Your task to perform on an android device: check out phone information Image 0: 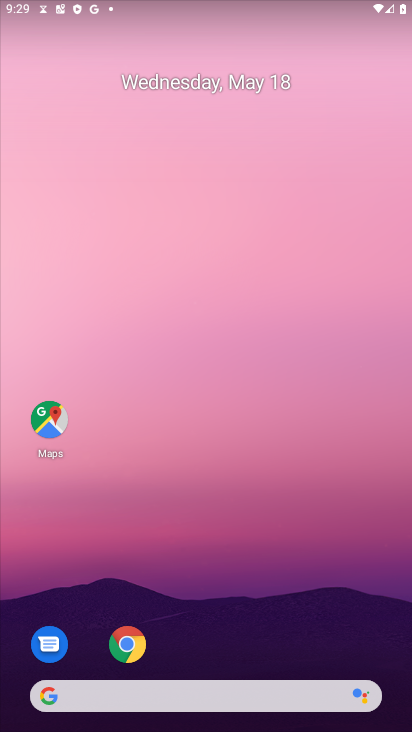
Step 0: drag from (259, 643) to (238, 236)
Your task to perform on an android device: check out phone information Image 1: 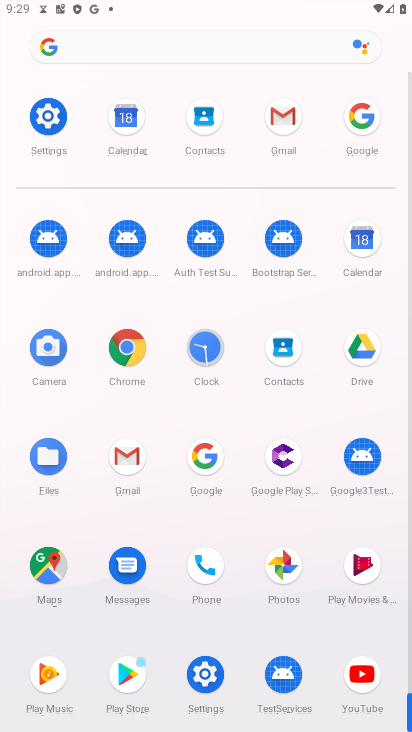
Step 1: click (47, 118)
Your task to perform on an android device: check out phone information Image 2: 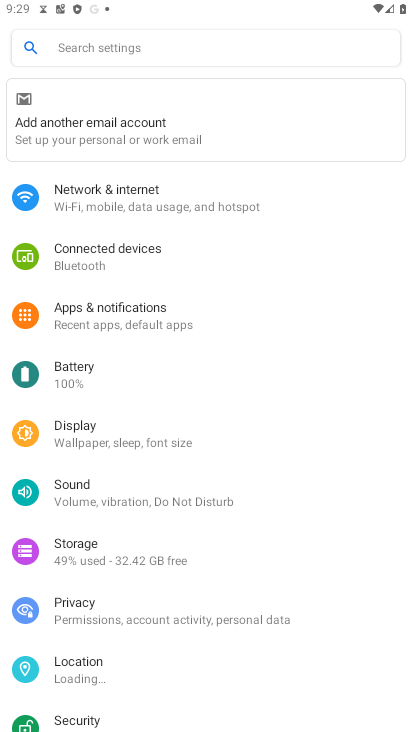
Step 2: drag from (121, 423) to (165, 344)
Your task to perform on an android device: check out phone information Image 3: 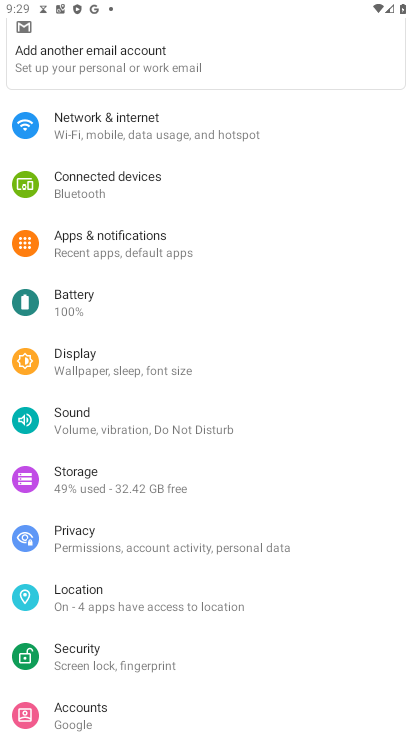
Step 3: drag from (103, 495) to (160, 421)
Your task to perform on an android device: check out phone information Image 4: 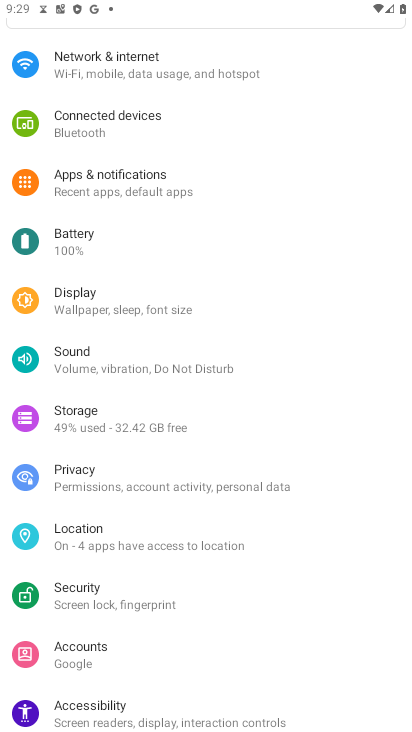
Step 4: drag from (125, 511) to (182, 412)
Your task to perform on an android device: check out phone information Image 5: 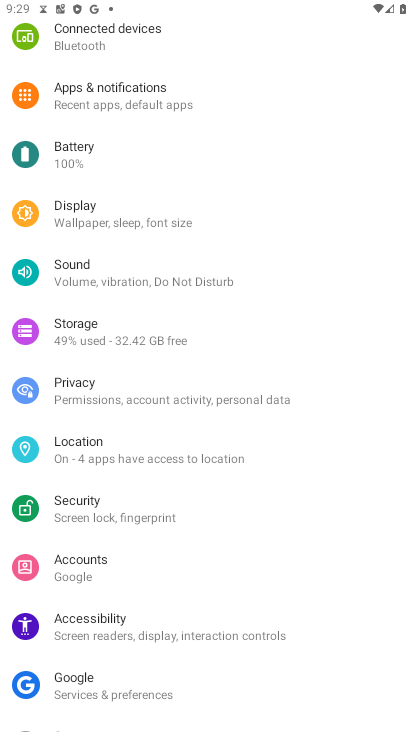
Step 5: drag from (137, 586) to (169, 487)
Your task to perform on an android device: check out phone information Image 6: 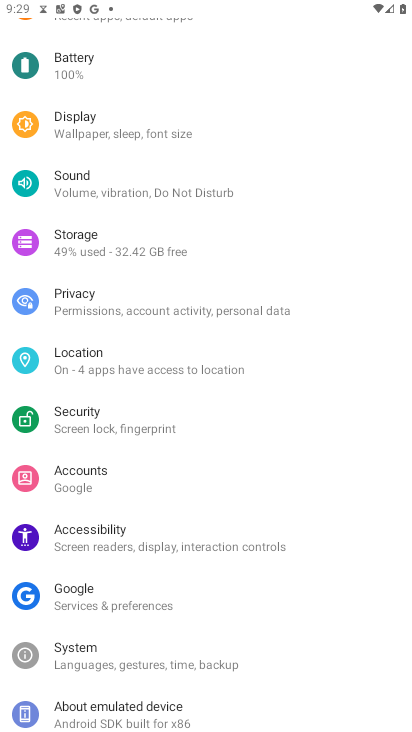
Step 6: drag from (121, 623) to (152, 555)
Your task to perform on an android device: check out phone information Image 7: 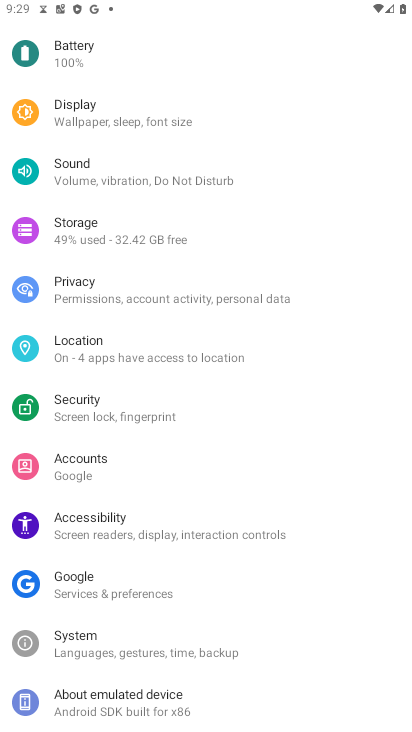
Step 7: click (99, 695)
Your task to perform on an android device: check out phone information Image 8: 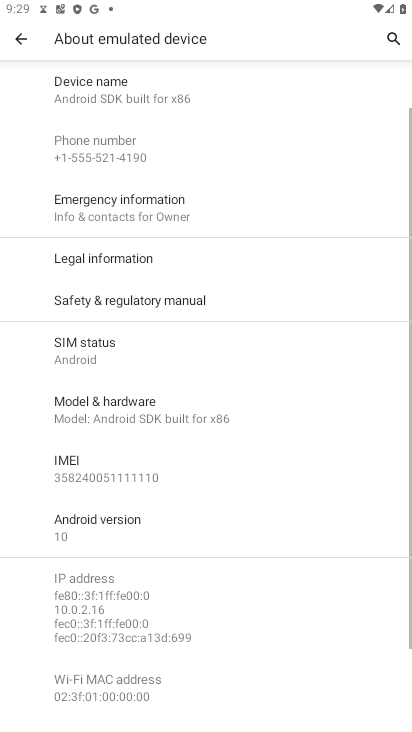
Step 8: task complete